Your task to perform on an android device: Show me recent news Image 0: 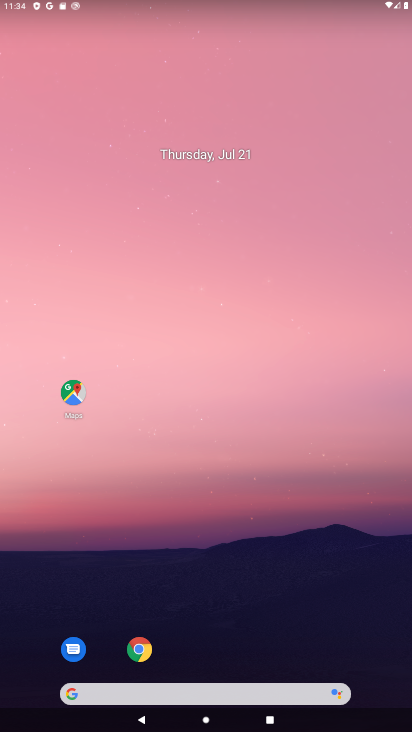
Step 0: drag from (241, 649) to (164, 143)
Your task to perform on an android device: Show me recent news Image 1: 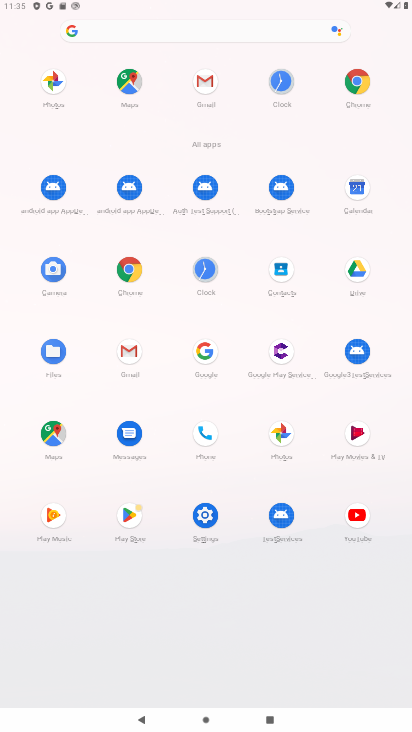
Step 1: click (356, 85)
Your task to perform on an android device: Show me recent news Image 2: 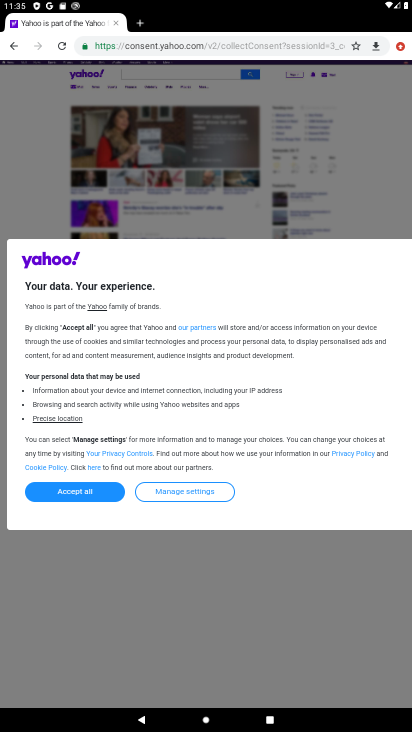
Step 2: click (249, 44)
Your task to perform on an android device: Show me recent news Image 3: 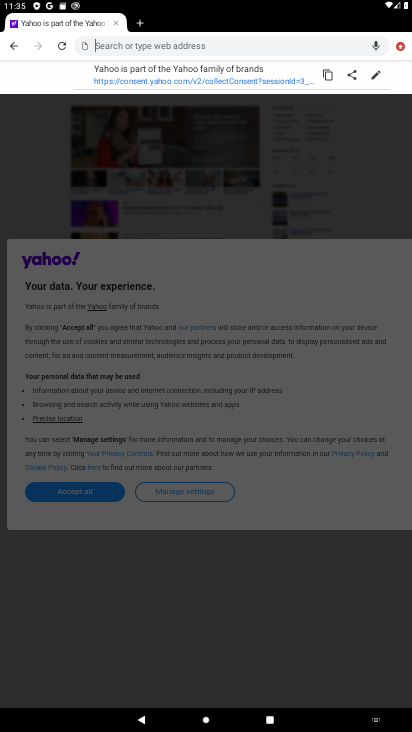
Step 3: type "news"
Your task to perform on an android device: Show me recent news Image 4: 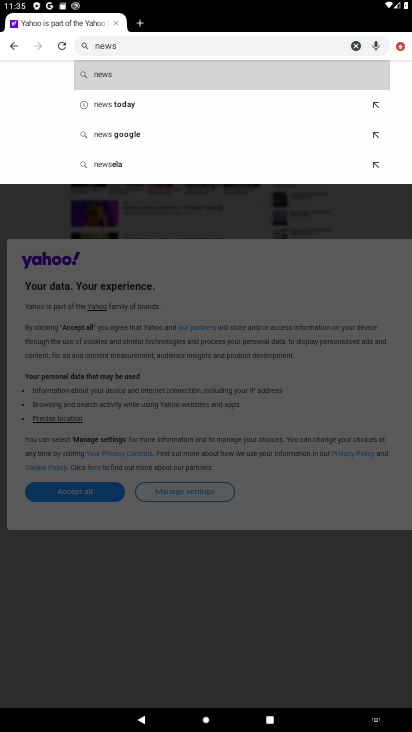
Step 4: click (150, 69)
Your task to perform on an android device: Show me recent news Image 5: 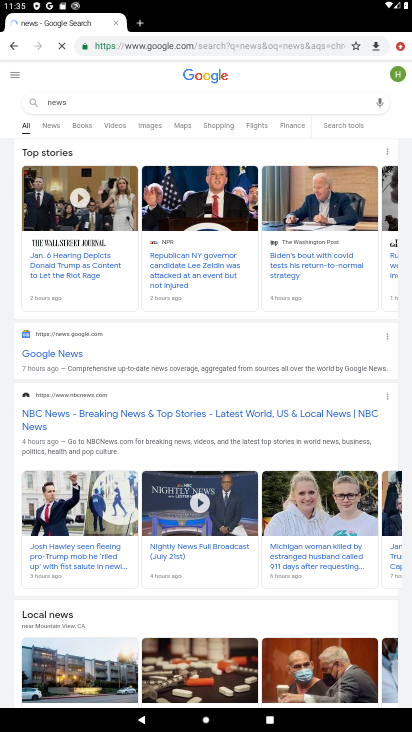
Step 5: click (55, 345)
Your task to perform on an android device: Show me recent news Image 6: 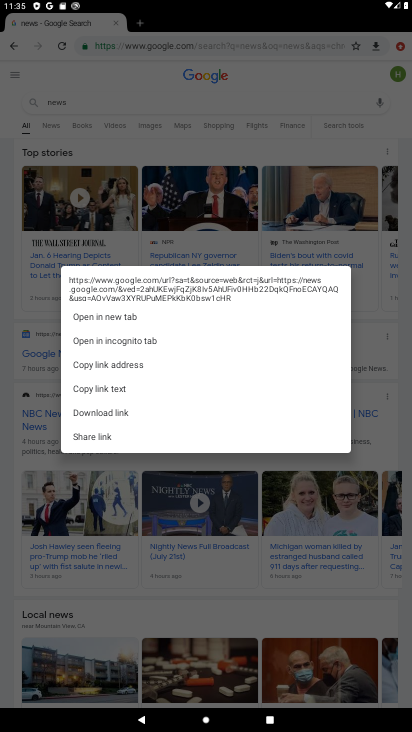
Step 6: click (47, 393)
Your task to perform on an android device: Show me recent news Image 7: 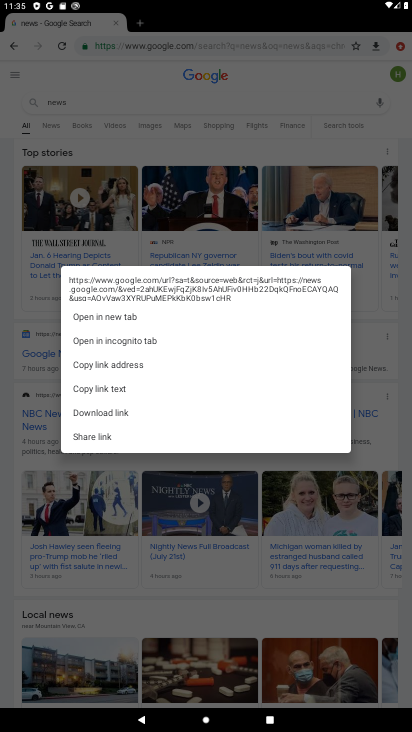
Step 7: click (245, 133)
Your task to perform on an android device: Show me recent news Image 8: 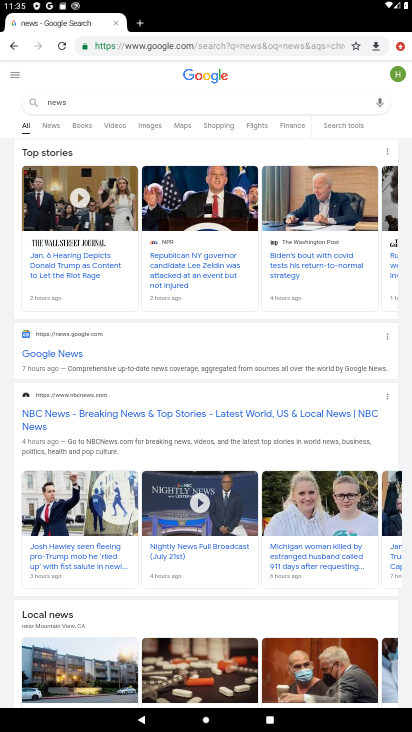
Step 8: click (75, 350)
Your task to perform on an android device: Show me recent news Image 9: 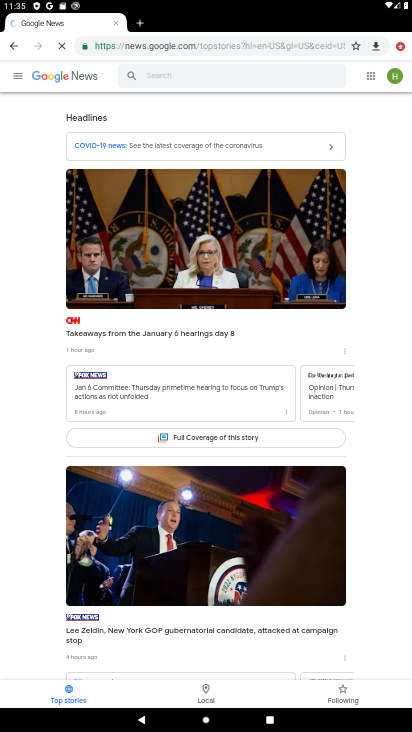
Step 9: task complete